Your task to perform on an android device: Go to Amazon Image 0: 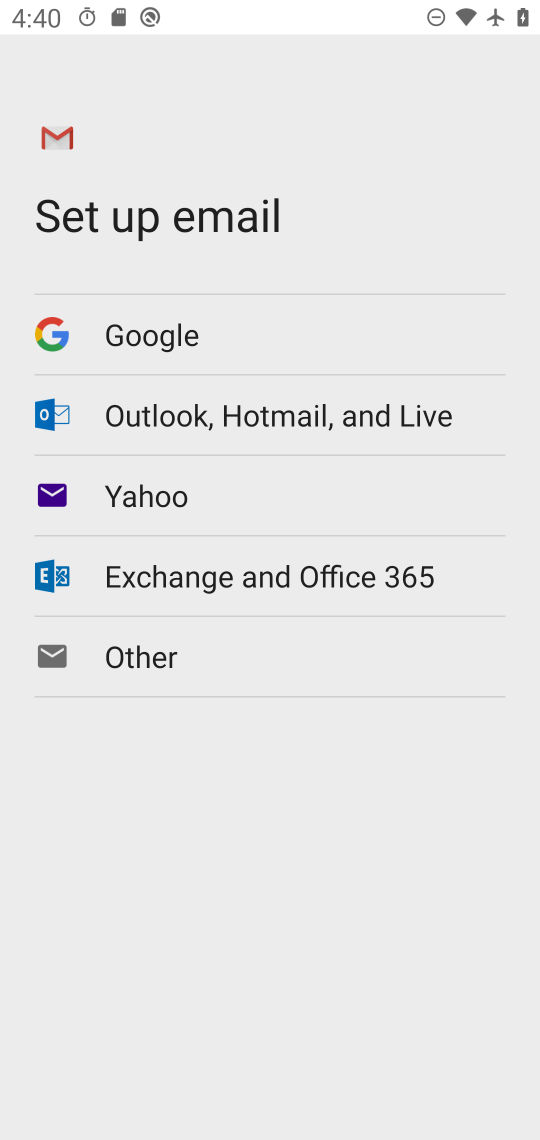
Step 0: press home button
Your task to perform on an android device: Go to Amazon Image 1: 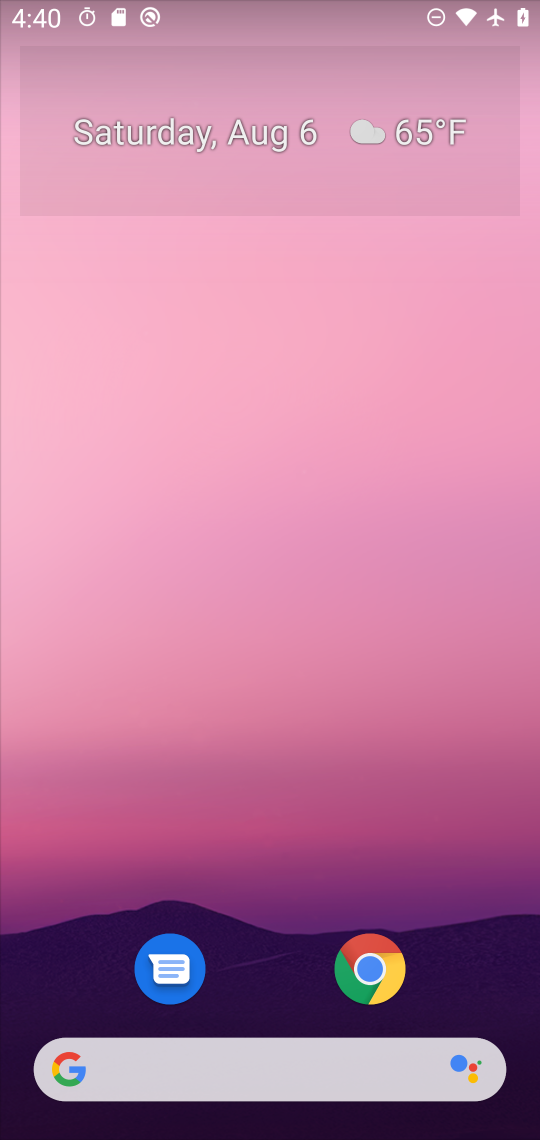
Step 1: click (68, 1081)
Your task to perform on an android device: Go to Amazon Image 2: 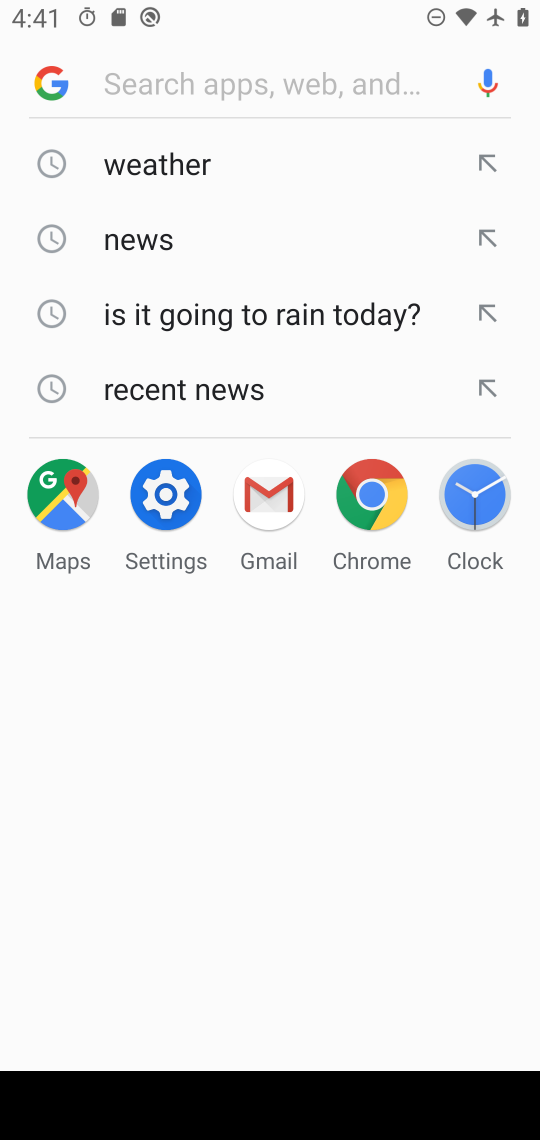
Step 2: type "Amazon"
Your task to perform on an android device: Go to Amazon Image 3: 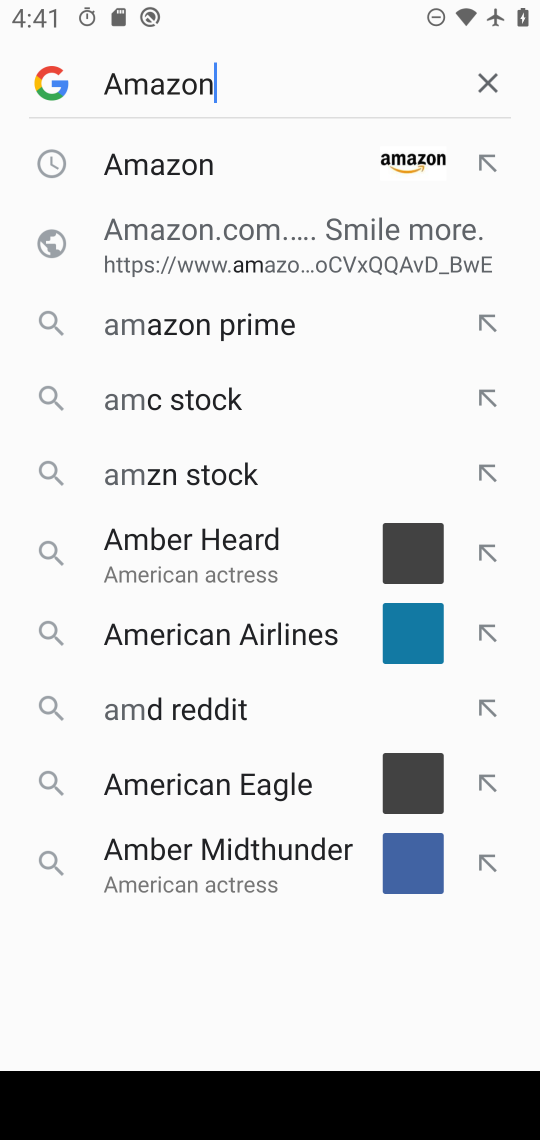
Step 3: press enter
Your task to perform on an android device: Go to Amazon Image 4: 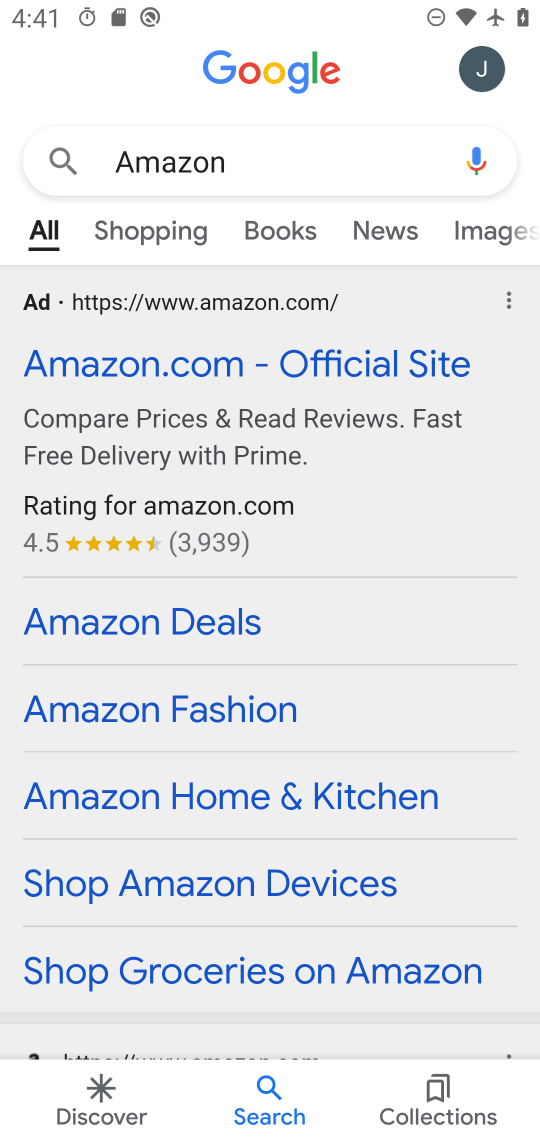
Step 4: click (219, 363)
Your task to perform on an android device: Go to Amazon Image 5: 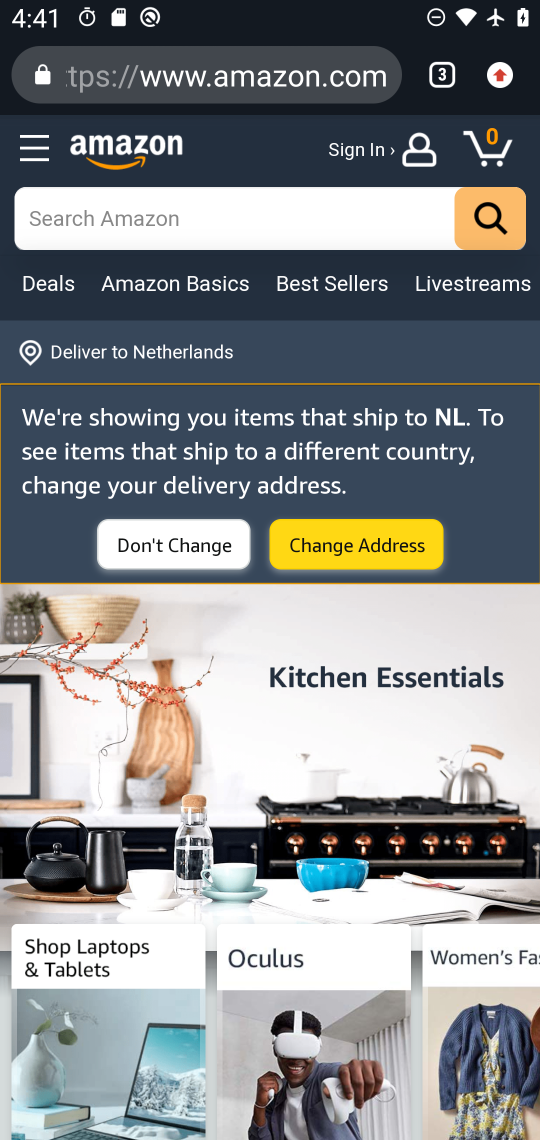
Step 5: task complete